Your task to perform on an android device: turn on wifi Image 0: 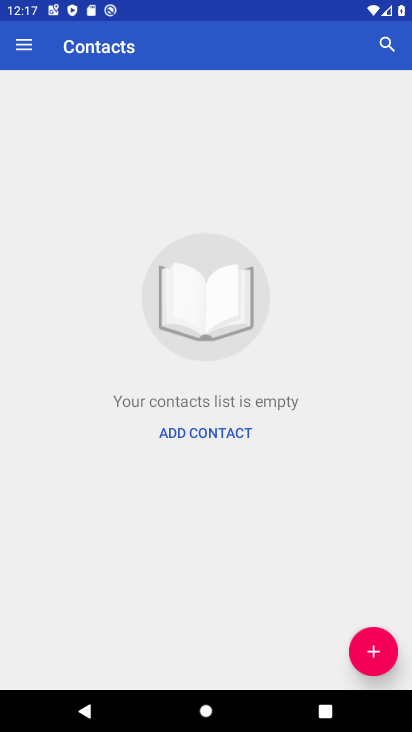
Step 0: press home button
Your task to perform on an android device: turn on wifi Image 1: 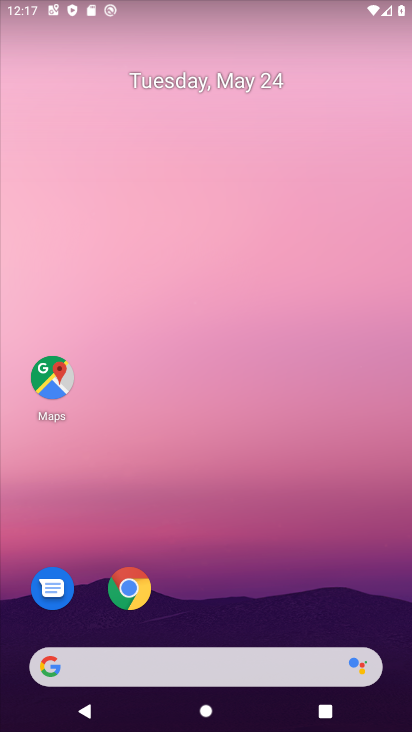
Step 1: drag from (195, 615) to (164, 121)
Your task to perform on an android device: turn on wifi Image 2: 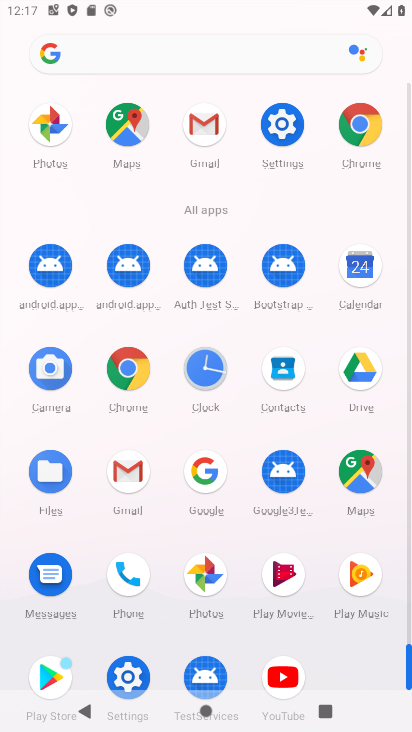
Step 2: click (277, 132)
Your task to perform on an android device: turn on wifi Image 3: 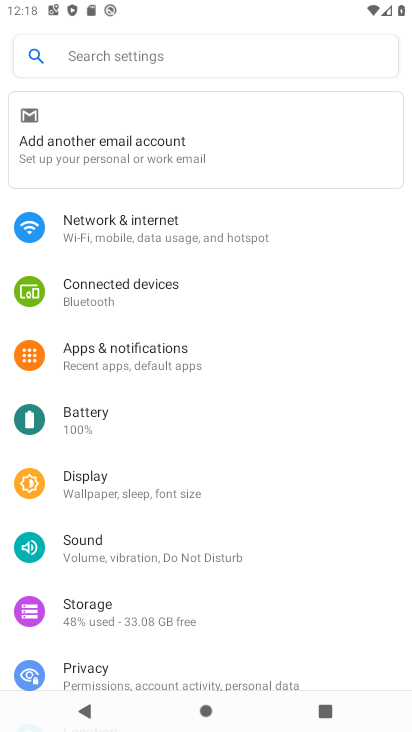
Step 3: click (157, 243)
Your task to perform on an android device: turn on wifi Image 4: 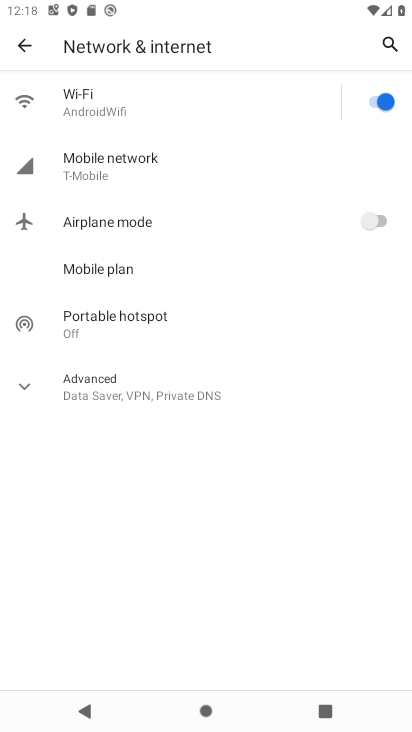
Step 4: task complete